Your task to perform on an android device: What's on my calendar today? Image 0: 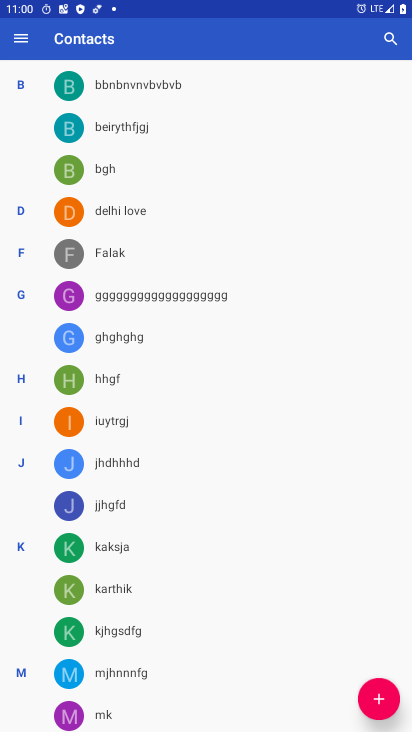
Step 0: press home button
Your task to perform on an android device: What's on my calendar today? Image 1: 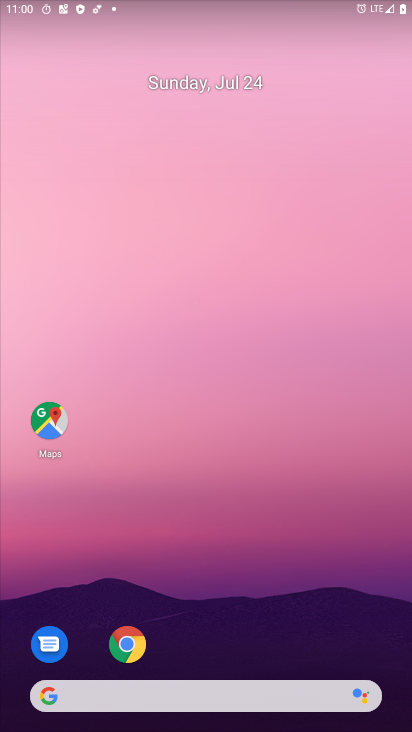
Step 1: drag from (211, 675) to (244, 216)
Your task to perform on an android device: What's on my calendar today? Image 2: 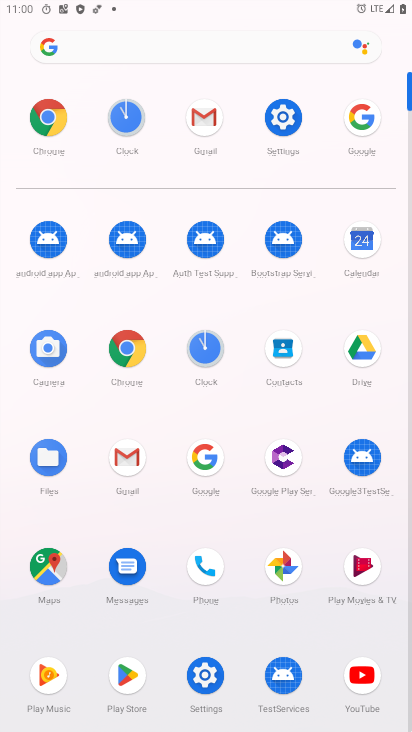
Step 2: click (367, 242)
Your task to perform on an android device: What's on my calendar today? Image 3: 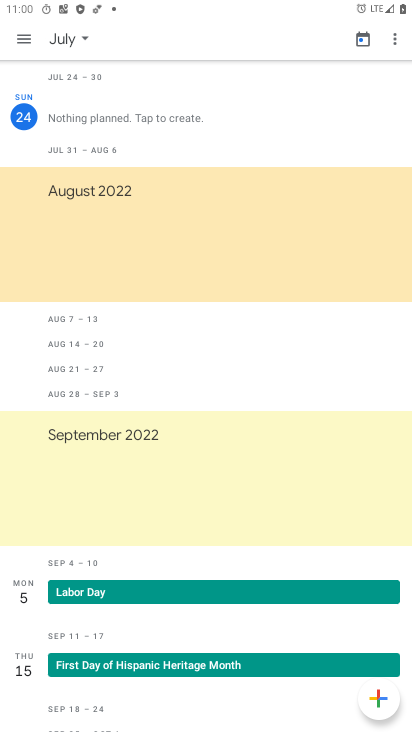
Step 3: click (60, 37)
Your task to perform on an android device: What's on my calendar today? Image 4: 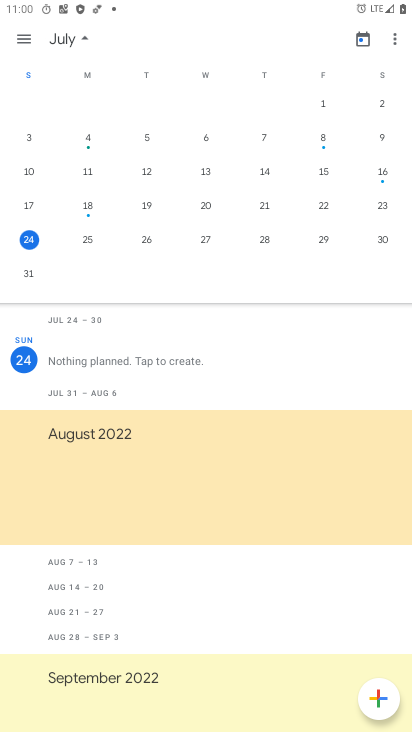
Step 4: click (33, 235)
Your task to perform on an android device: What's on my calendar today? Image 5: 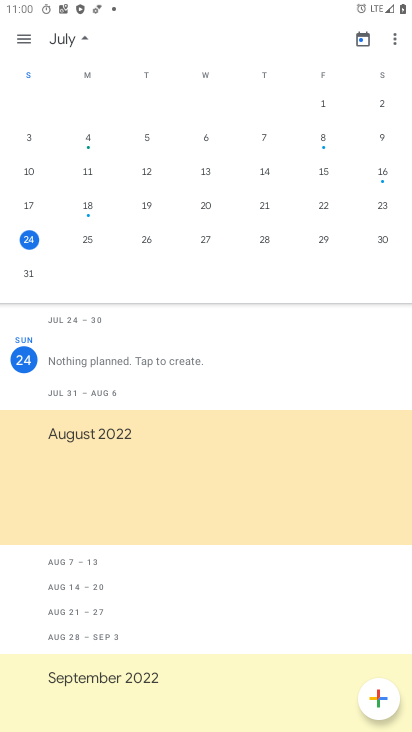
Step 5: click (30, 242)
Your task to perform on an android device: What's on my calendar today? Image 6: 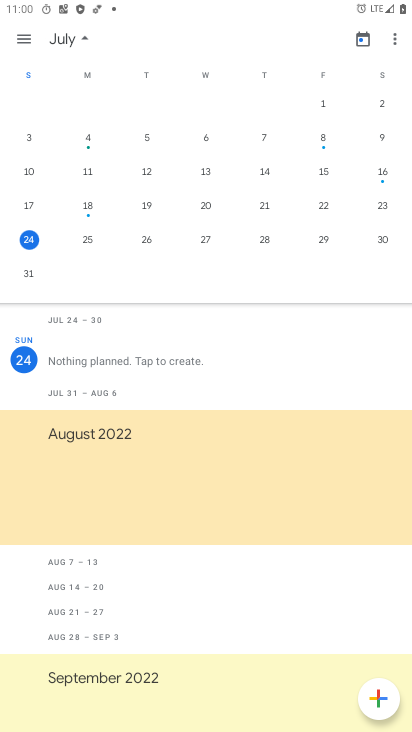
Step 6: task complete